Your task to perform on an android device: change the clock style Image 0: 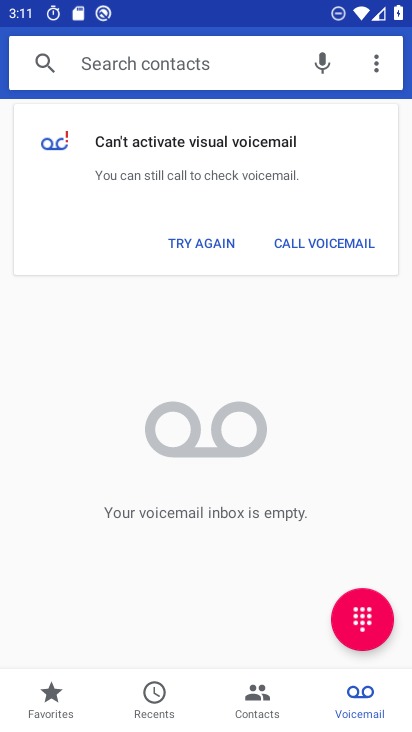
Step 0: click (270, 403)
Your task to perform on an android device: change the clock style Image 1: 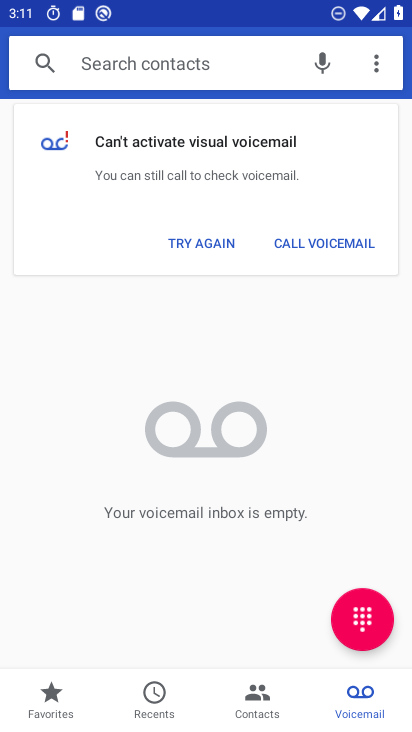
Step 1: press home button
Your task to perform on an android device: change the clock style Image 2: 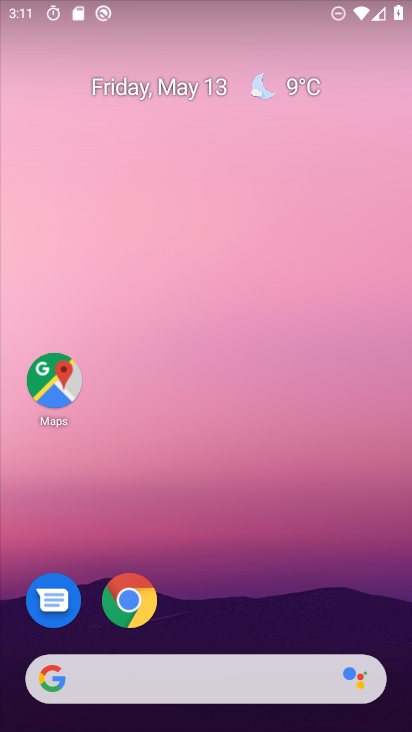
Step 2: drag from (203, 627) to (309, 159)
Your task to perform on an android device: change the clock style Image 3: 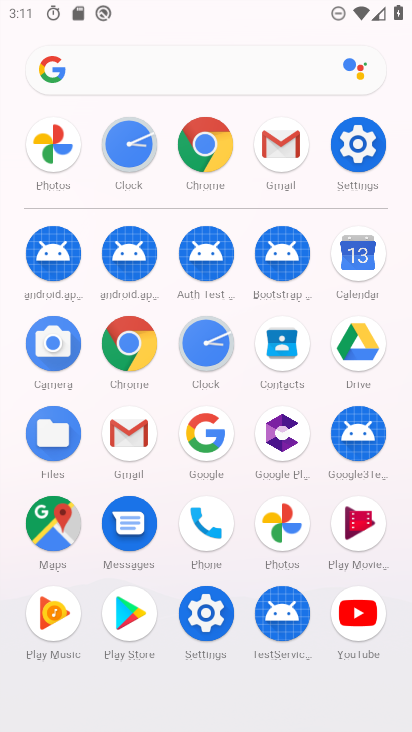
Step 3: click (201, 345)
Your task to perform on an android device: change the clock style Image 4: 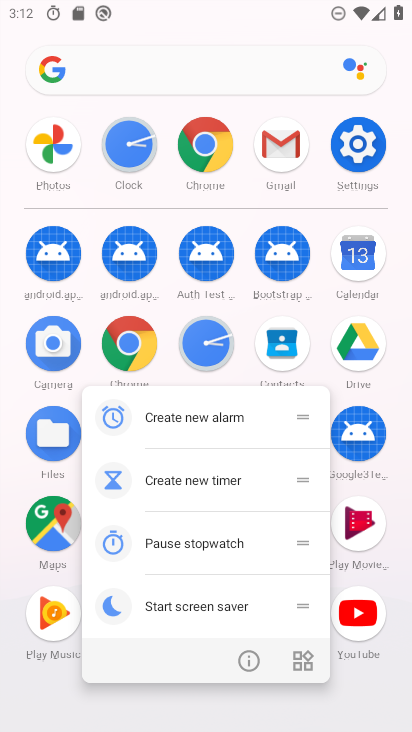
Step 4: click (239, 650)
Your task to perform on an android device: change the clock style Image 5: 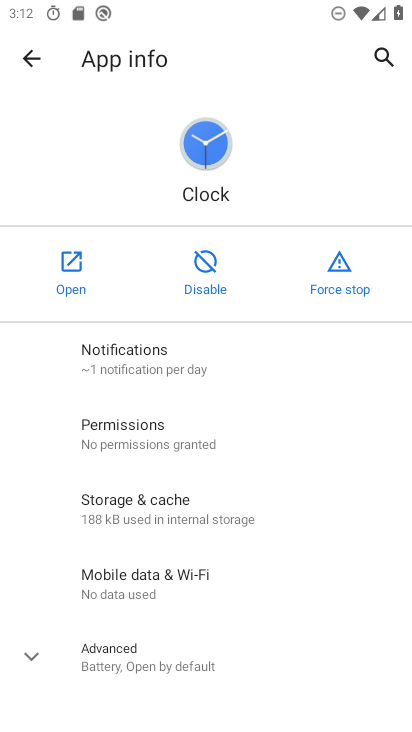
Step 5: click (70, 254)
Your task to perform on an android device: change the clock style Image 6: 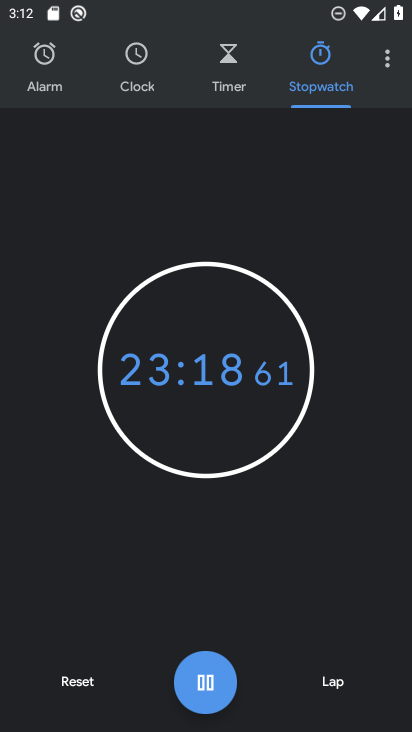
Step 6: click (69, 704)
Your task to perform on an android device: change the clock style Image 7: 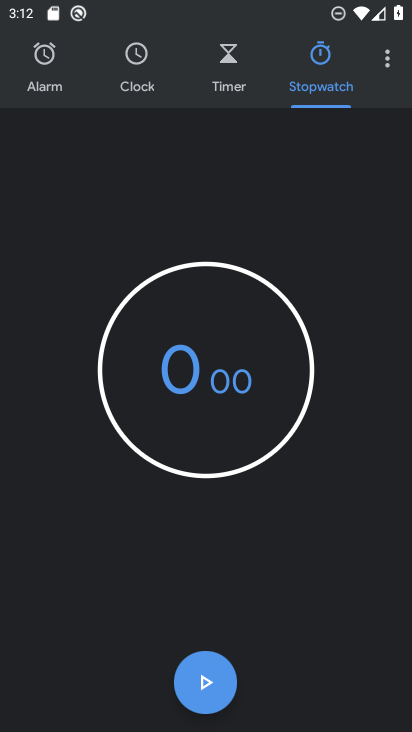
Step 7: click (137, 75)
Your task to perform on an android device: change the clock style Image 8: 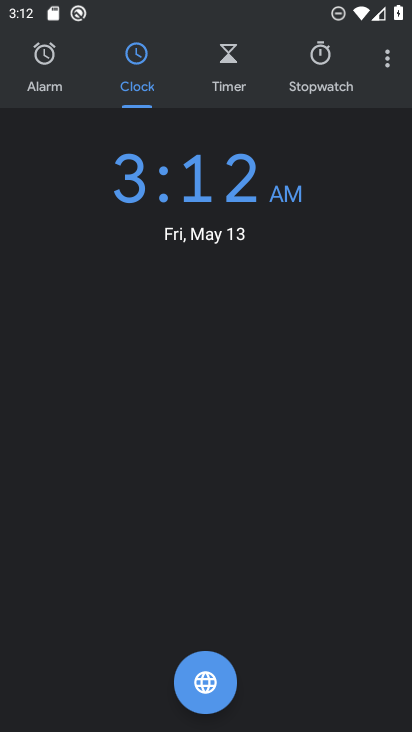
Step 8: click (378, 60)
Your task to perform on an android device: change the clock style Image 9: 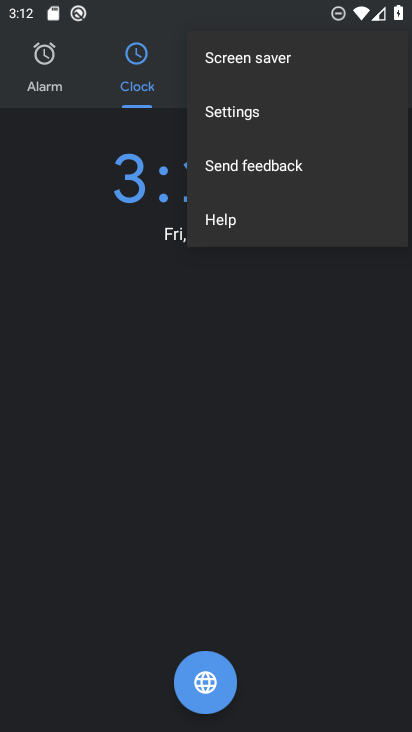
Step 9: click (251, 108)
Your task to perform on an android device: change the clock style Image 10: 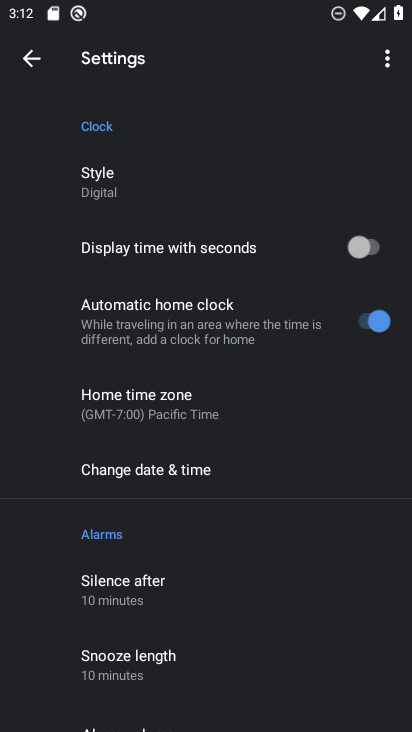
Step 10: click (136, 179)
Your task to perform on an android device: change the clock style Image 11: 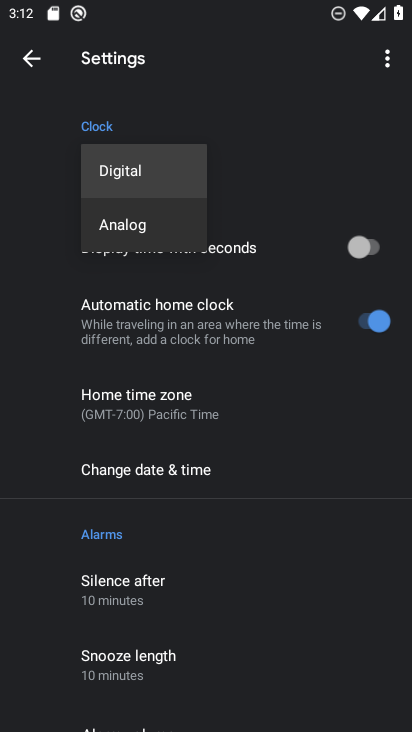
Step 11: click (131, 216)
Your task to perform on an android device: change the clock style Image 12: 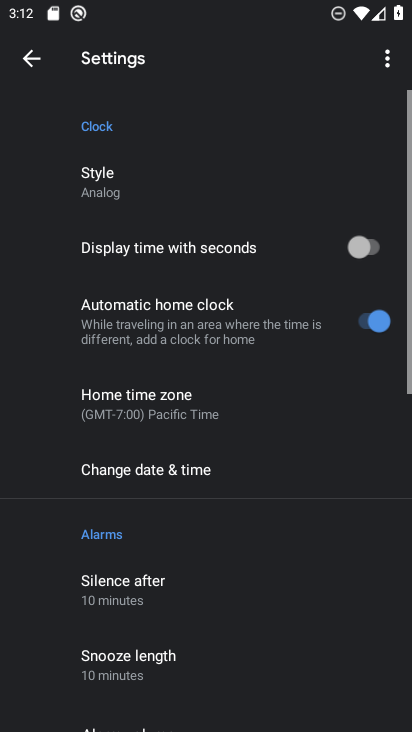
Step 12: task complete